Your task to perform on an android device: open a new tab in the chrome app Image 0: 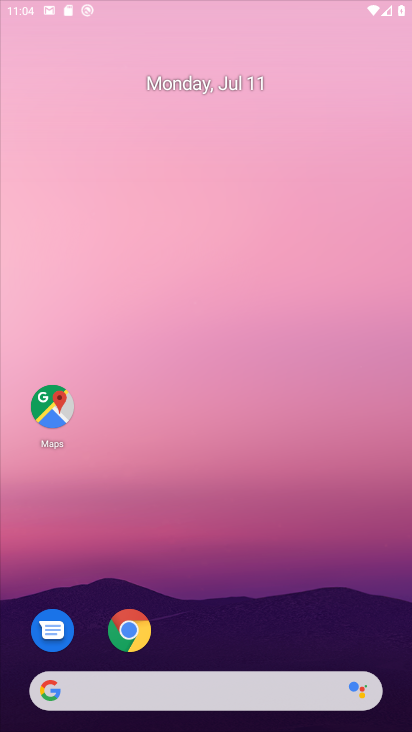
Step 0: drag from (284, 597) to (263, 140)
Your task to perform on an android device: open a new tab in the chrome app Image 1: 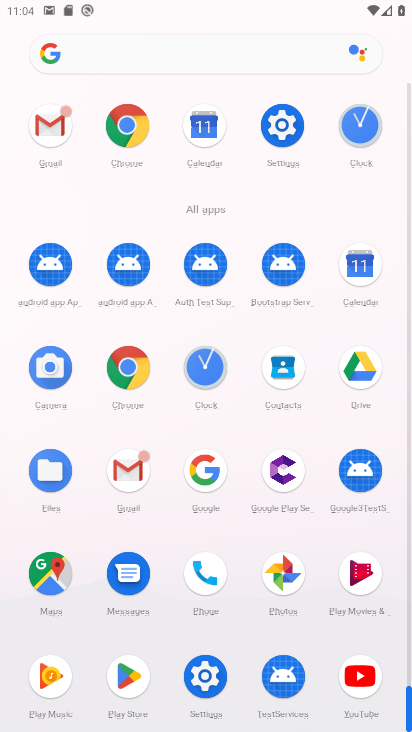
Step 1: click (126, 376)
Your task to perform on an android device: open a new tab in the chrome app Image 2: 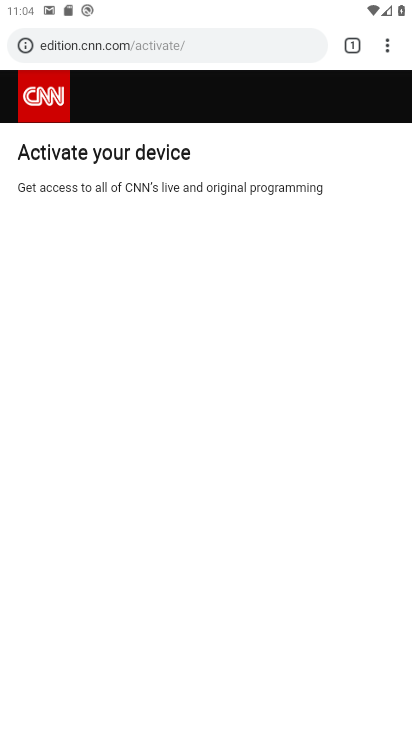
Step 2: click (355, 46)
Your task to perform on an android device: open a new tab in the chrome app Image 3: 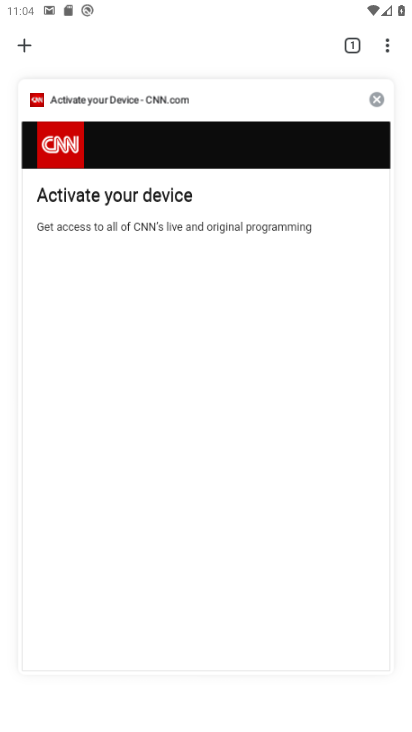
Step 3: click (25, 51)
Your task to perform on an android device: open a new tab in the chrome app Image 4: 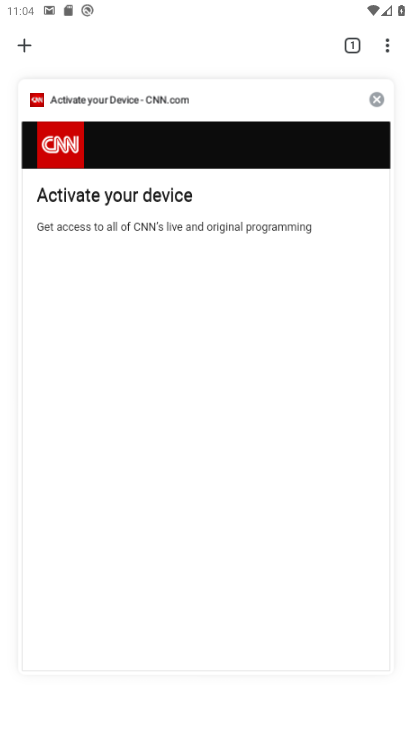
Step 4: click (26, 46)
Your task to perform on an android device: open a new tab in the chrome app Image 5: 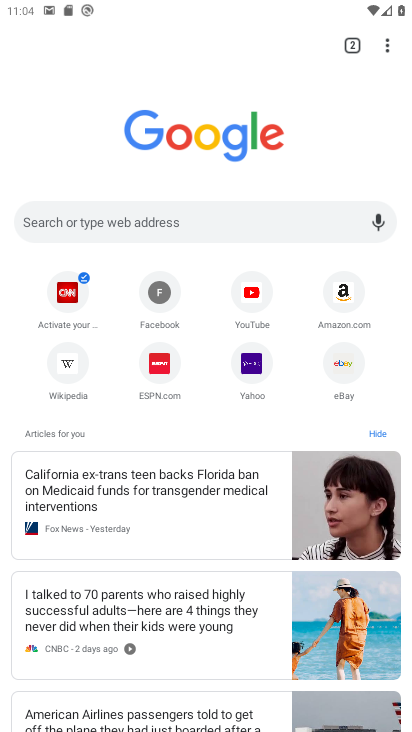
Step 5: task complete